Your task to perform on an android device: What's a good restaurant in San Francisco? Image 0: 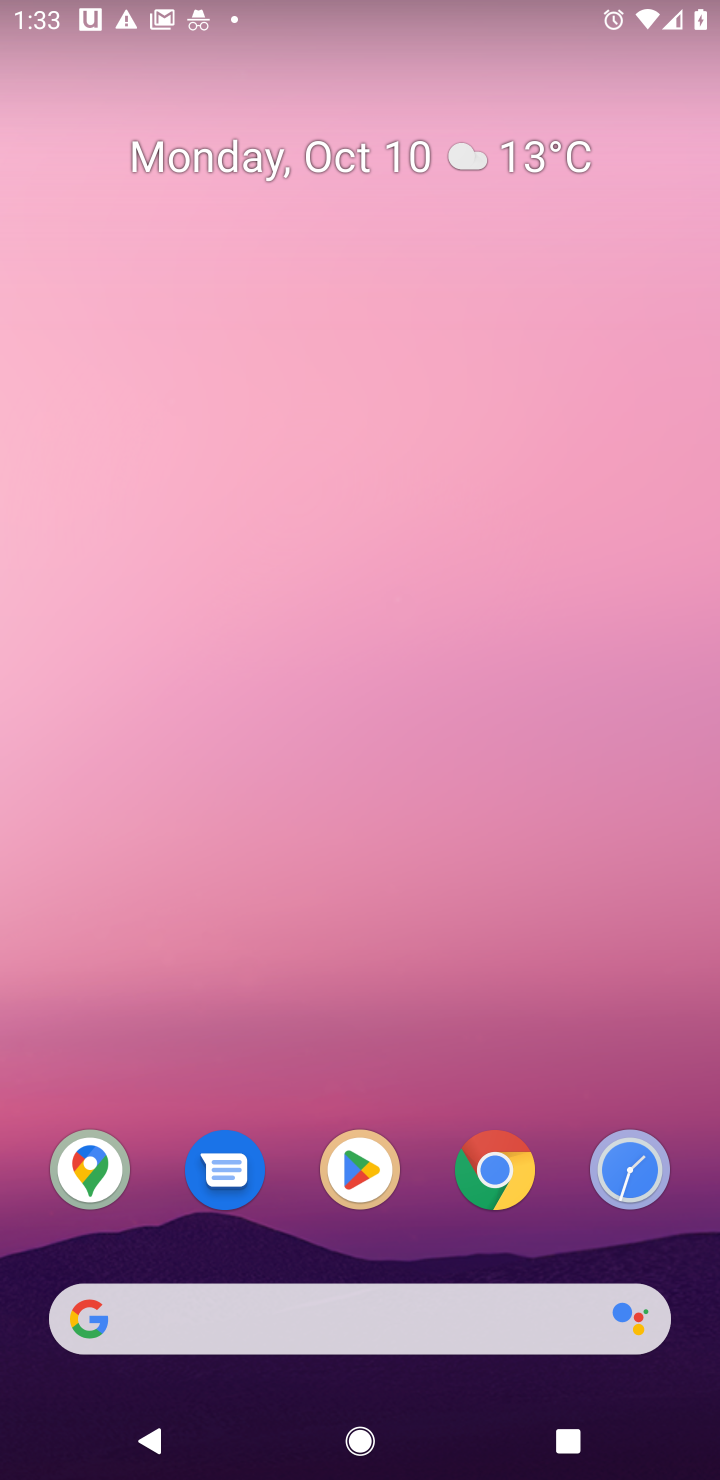
Step 0: click (478, 1165)
Your task to perform on an android device: What's a good restaurant in San Francisco? Image 1: 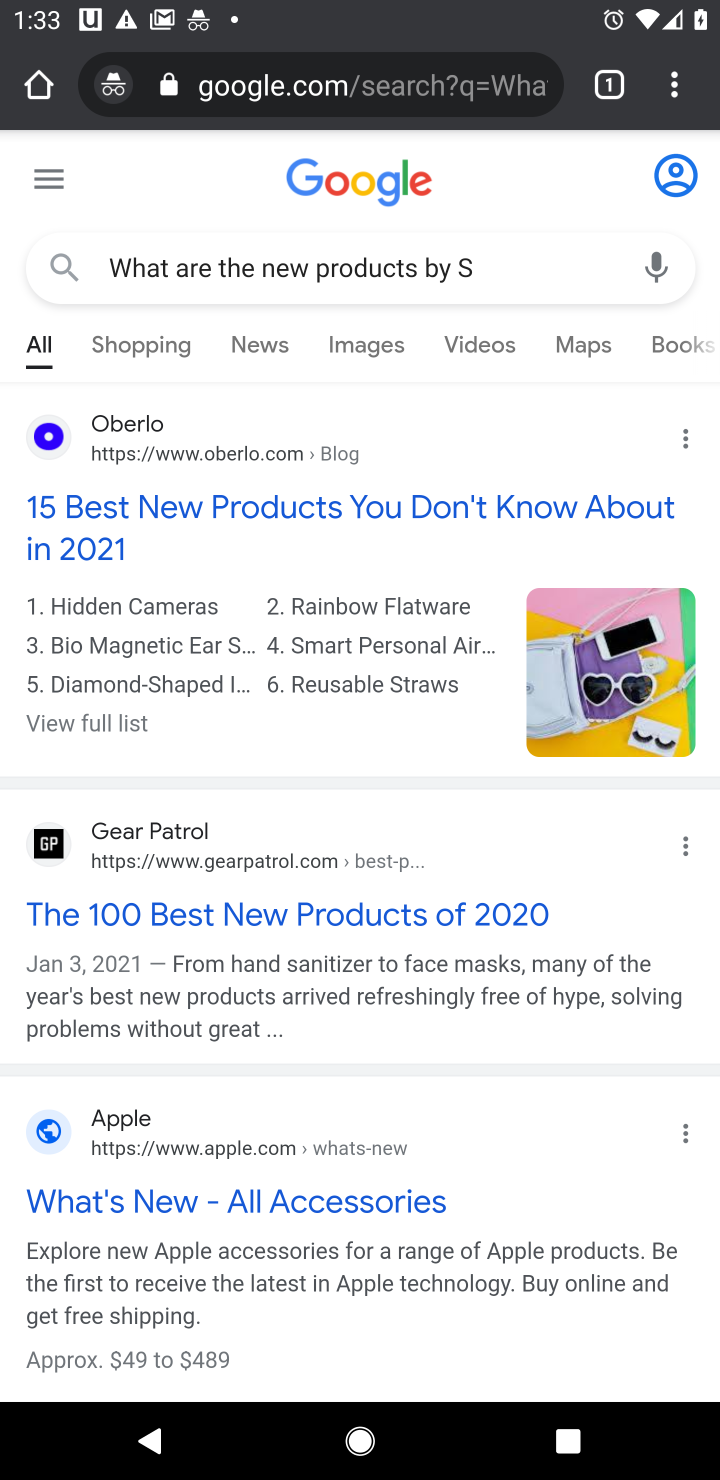
Step 1: click (341, 82)
Your task to perform on an android device: What's a good restaurant in San Francisco? Image 2: 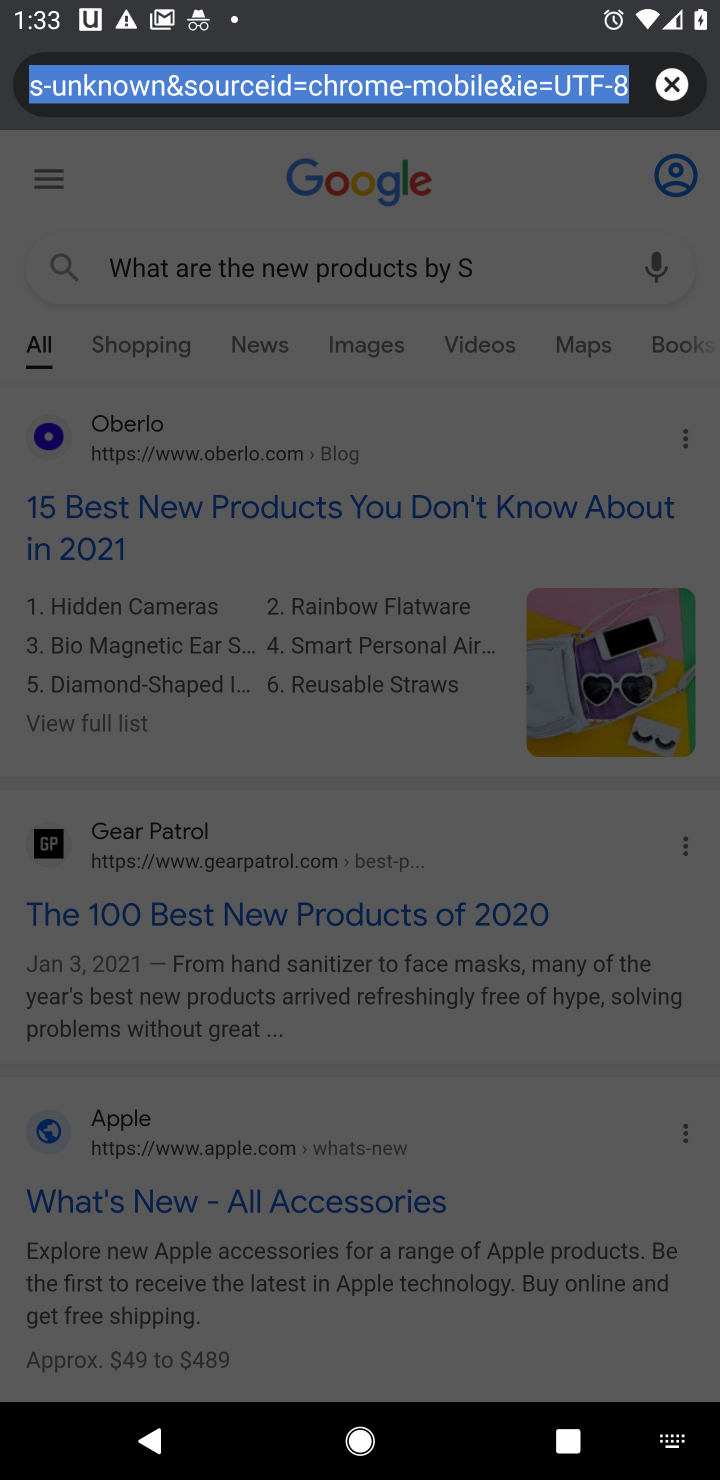
Step 2: click (667, 86)
Your task to perform on an android device: What's a good restaurant in San Francisco? Image 3: 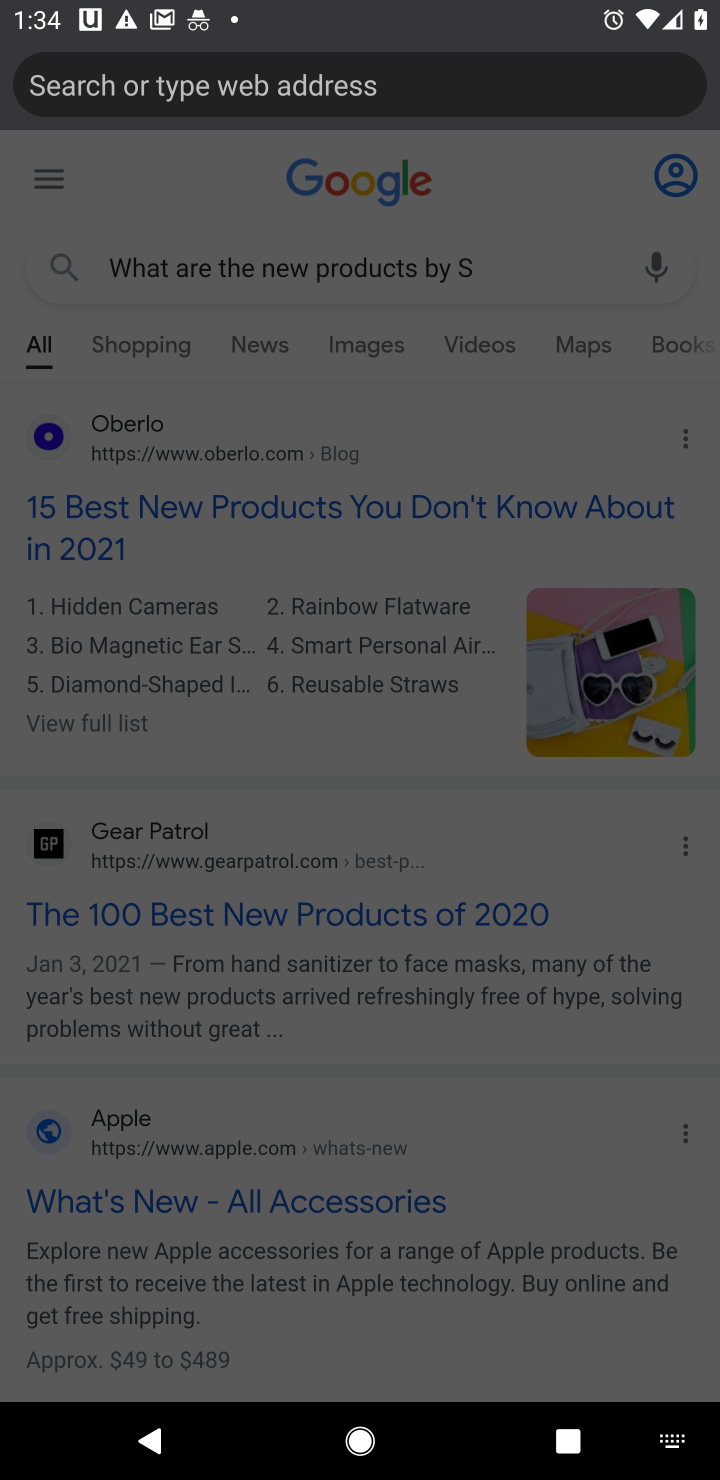
Step 3: type "whats a good restaurants in san francisco"
Your task to perform on an android device: What's a good restaurant in San Francisco? Image 4: 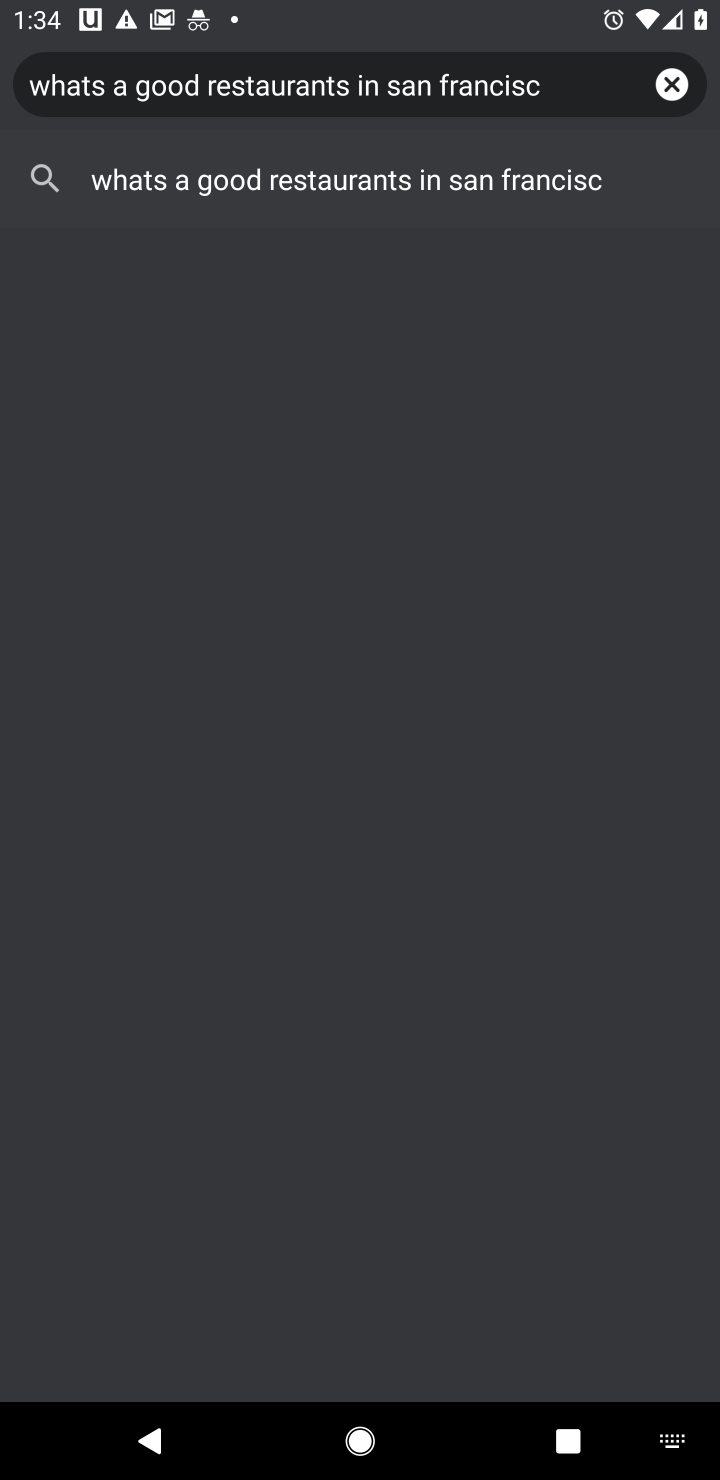
Step 4: type ""
Your task to perform on an android device: What's a good restaurant in San Francisco? Image 5: 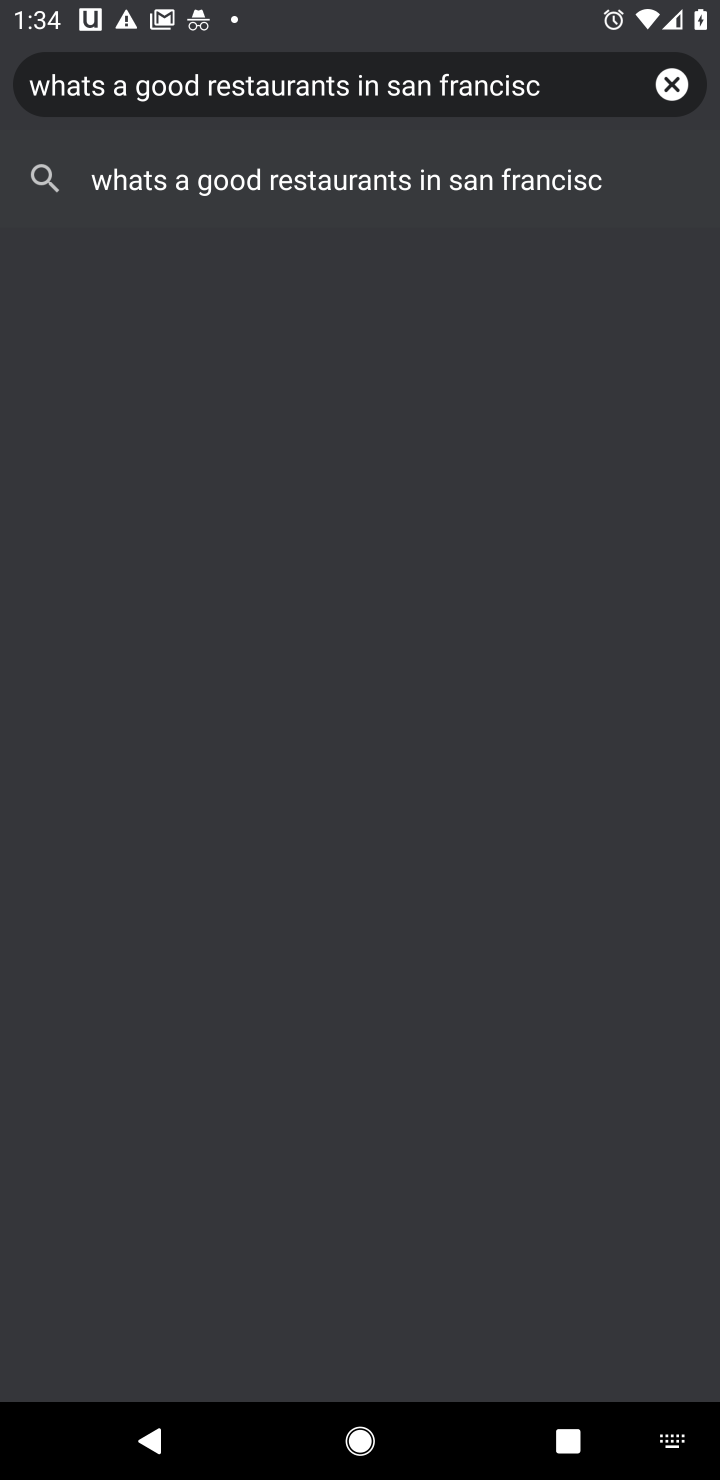
Step 5: click (196, 180)
Your task to perform on an android device: What's a good restaurant in San Francisco? Image 6: 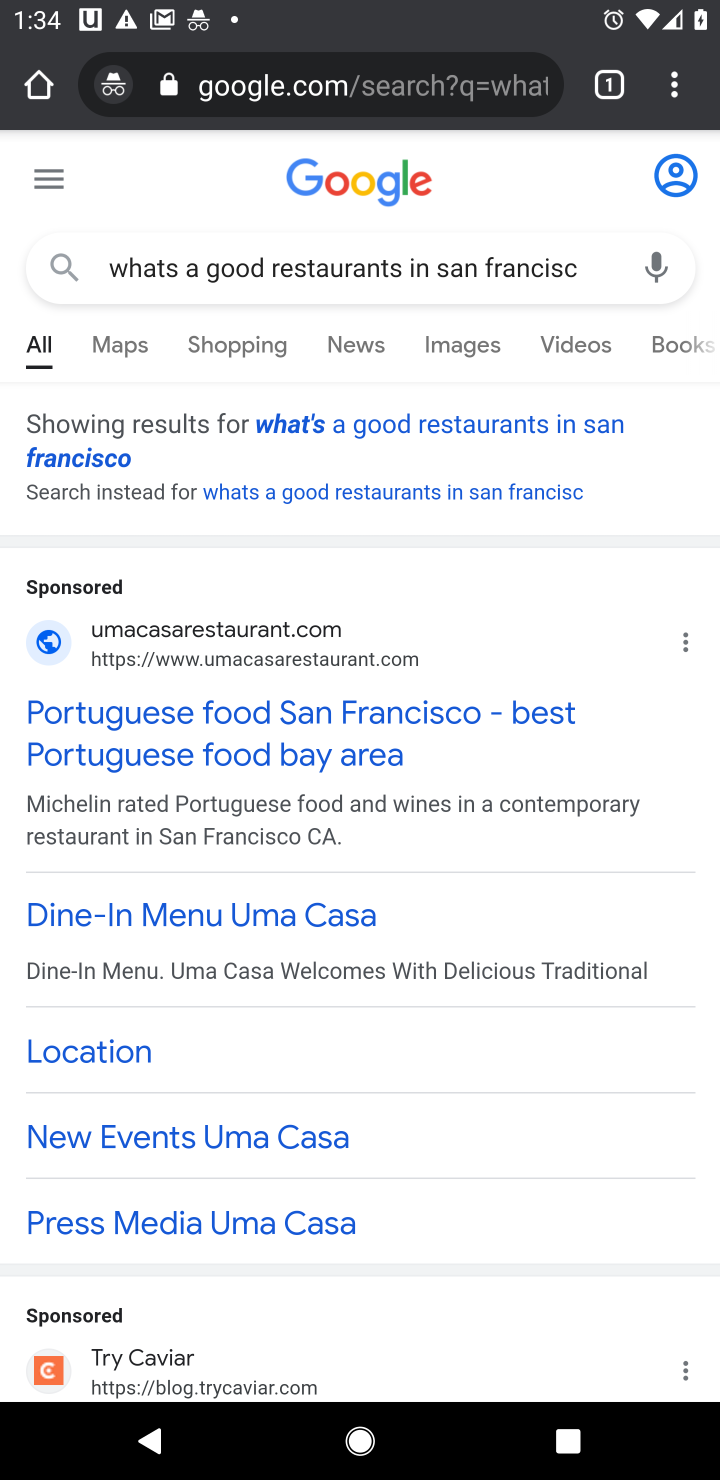
Step 6: task complete